Your task to perform on an android device: turn notification dots off Image 0: 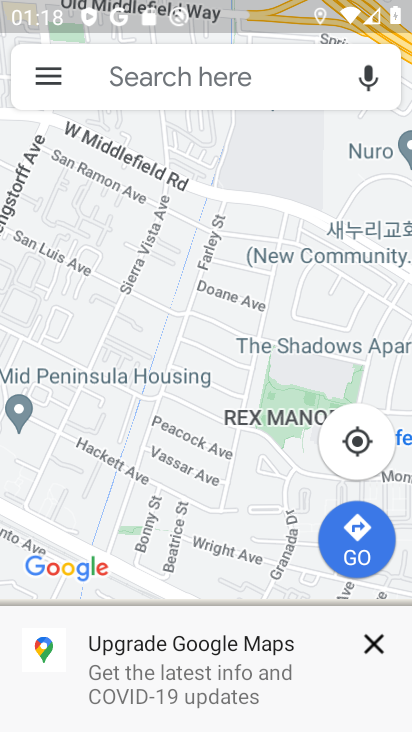
Step 0: press home button
Your task to perform on an android device: turn notification dots off Image 1: 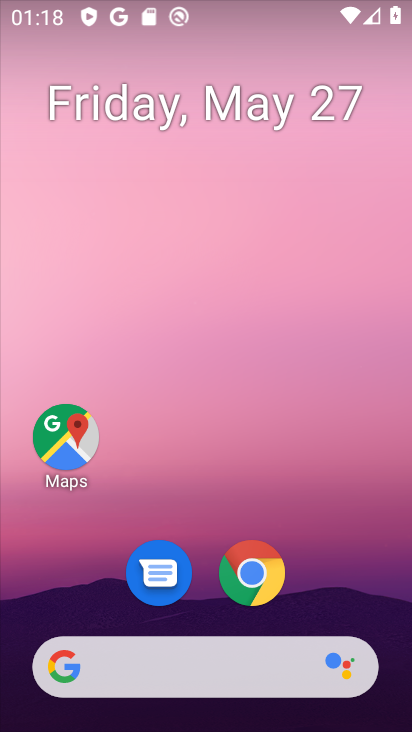
Step 1: drag from (224, 621) to (195, 1)
Your task to perform on an android device: turn notification dots off Image 2: 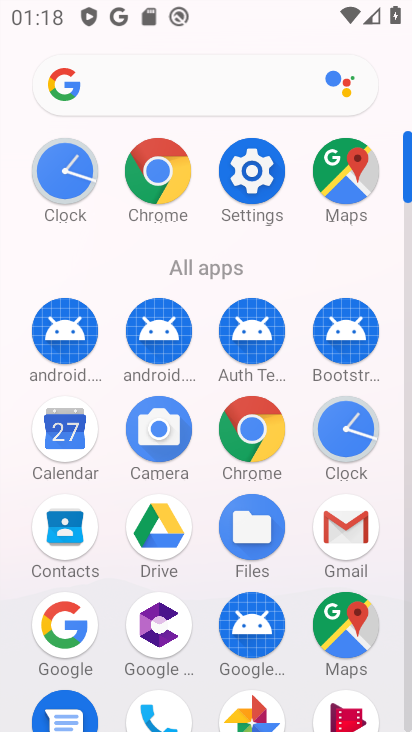
Step 2: click (269, 181)
Your task to perform on an android device: turn notification dots off Image 3: 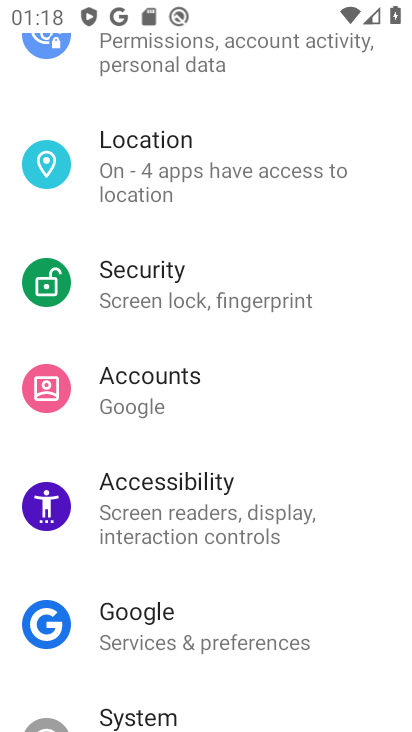
Step 3: drag from (181, 198) to (167, 701)
Your task to perform on an android device: turn notification dots off Image 4: 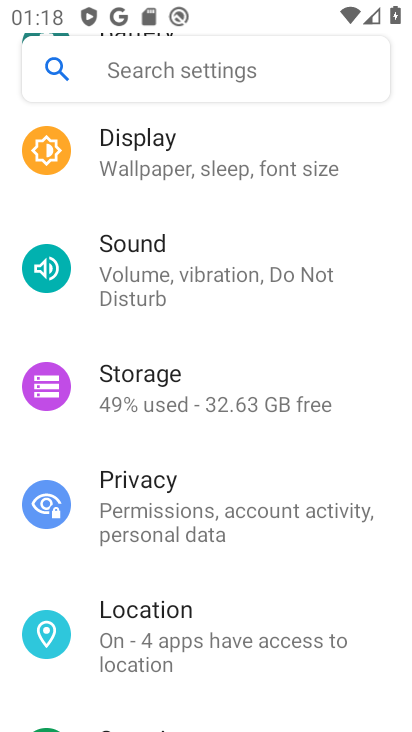
Step 4: drag from (198, 195) to (213, 549)
Your task to perform on an android device: turn notification dots off Image 5: 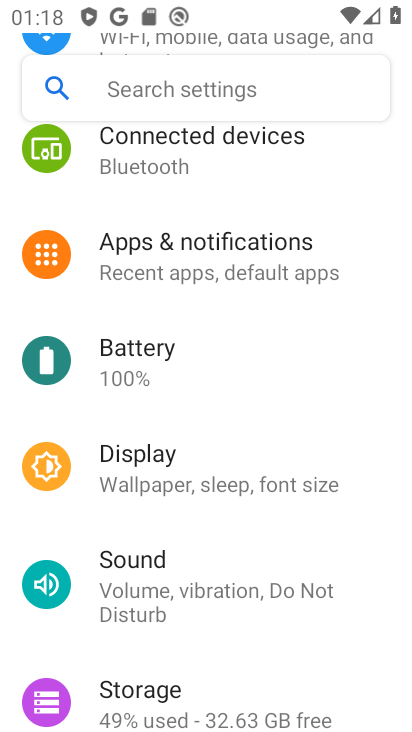
Step 5: click (229, 261)
Your task to perform on an android device: turn notification dots off Image 6: 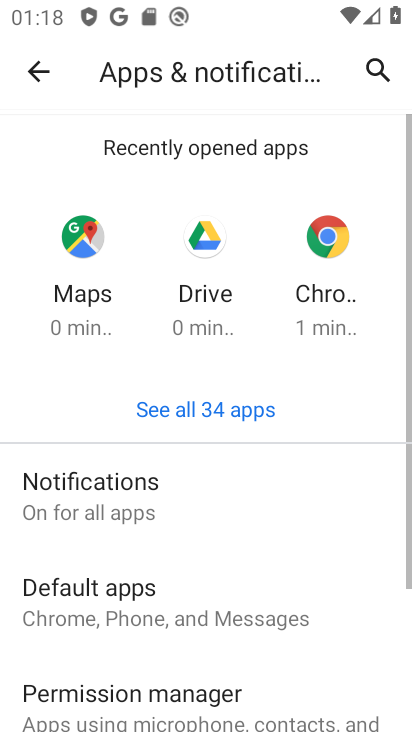
Step 6: click (144, 488)
Your task to perform on an android device: turn notification dots off Image 7: 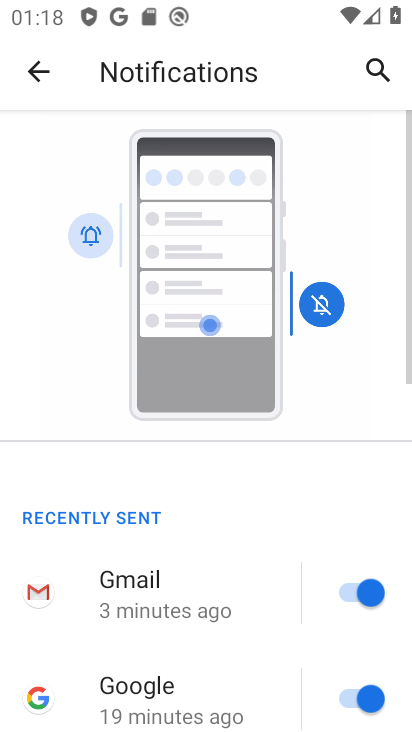
Step 7: drag from (174, 603) to (161, 39)
Your task to perform on an android device: turn notification dots off Image 8: 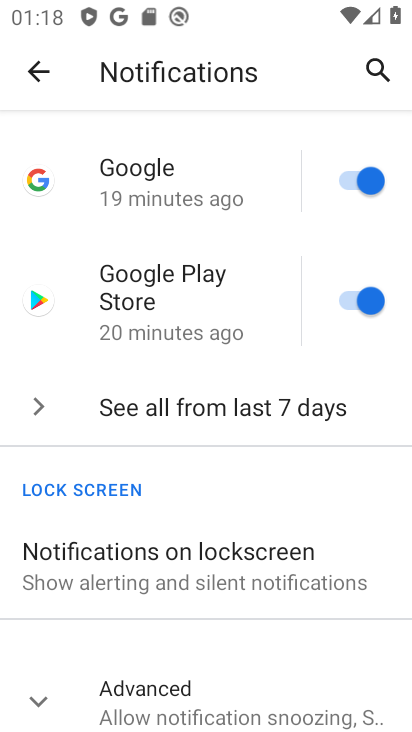
Step 8: click (202, 695)
Your task to perform on an android device: turn notification dots off Image 9: 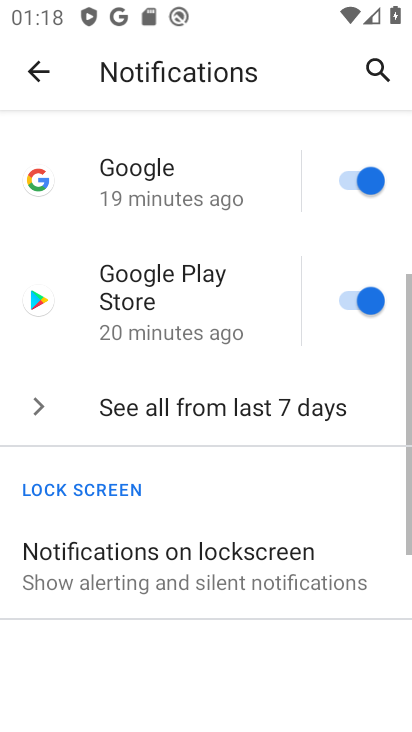
Step 9: drag from (202, 695) to (123, 154)
Your task to perform on an android device: turn notification dots off Image 10: 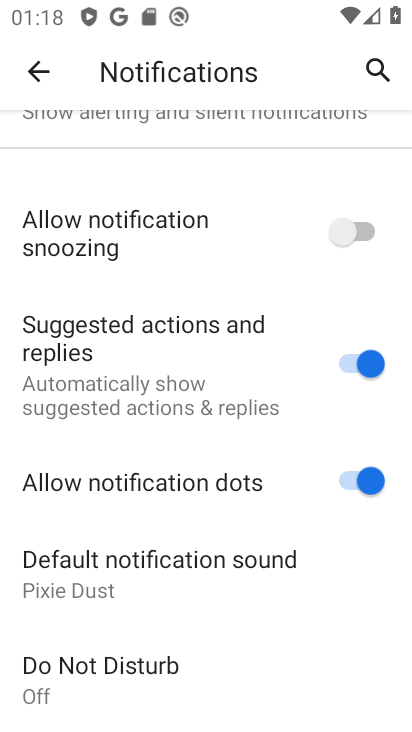
Step 10: click (375, 475)
Your task to perform on an android device: turn notification dots off Image 11: 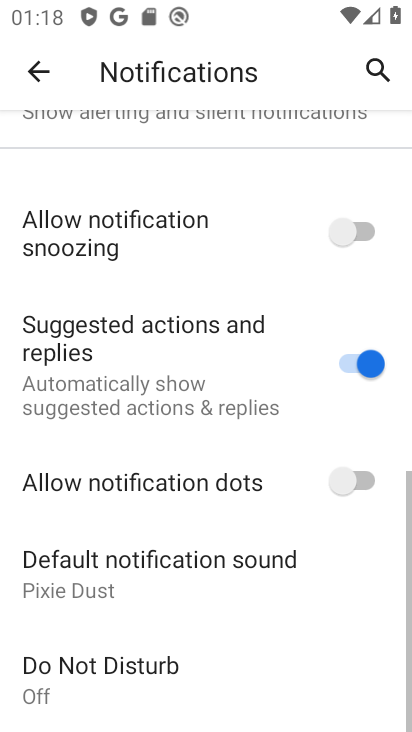
Step 11: task complete